Your task to perform on an android device: Open calendar and show me the third week of next month Image 0: 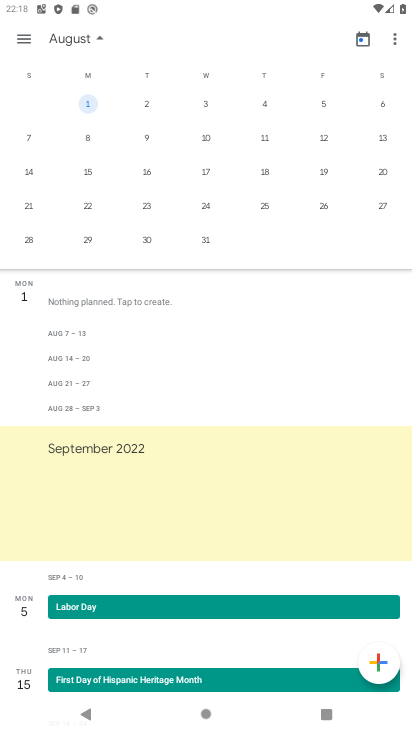
Step 0: press home button
Your task to perform on an android device: Open calendar and show me the third week of next month Image 1: 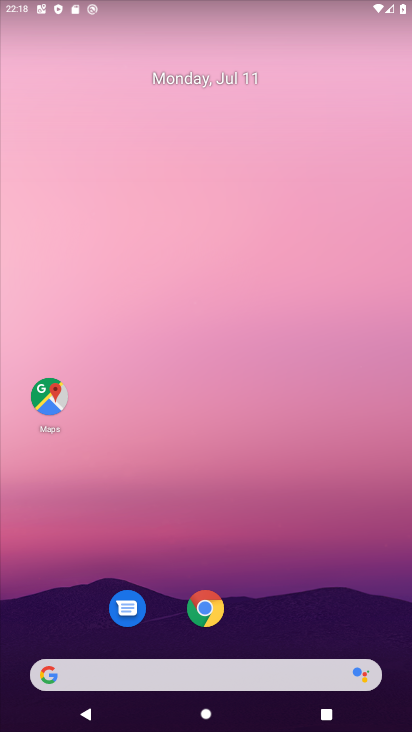
Step 1: drag from (43, 713) to (200, 9)
Your task to perform on an android device: Open calendar and show me the third week of next month Image 2: 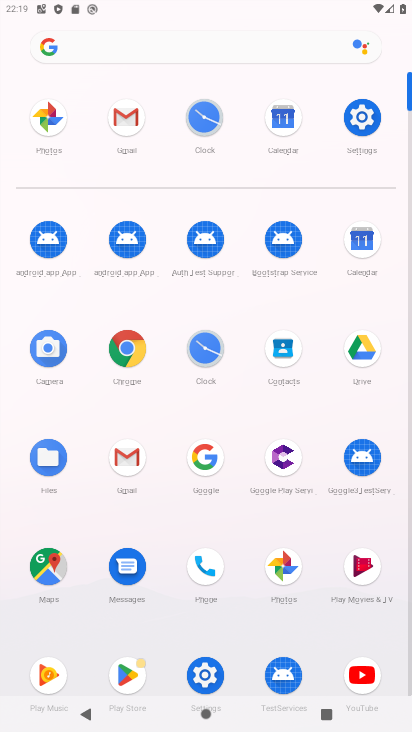
Step 2: click (376, 240)
Your task to perform on an android device: Open calendar and show me the third week of next month Image 3: 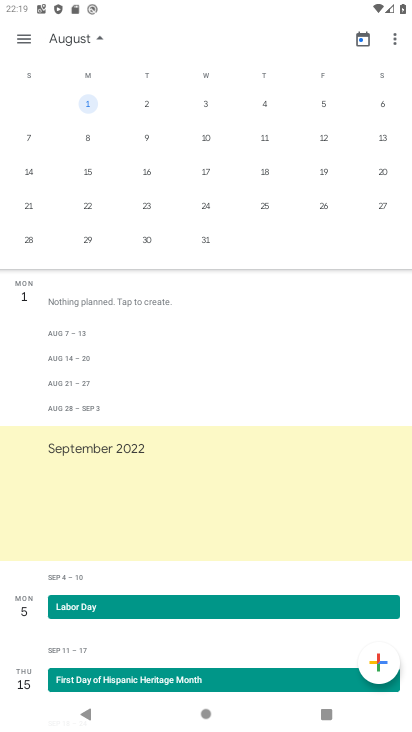
Step 3: click (77, 166)
Your task to perform on an android device: Open calendar and show me the third week of next month Image 4: 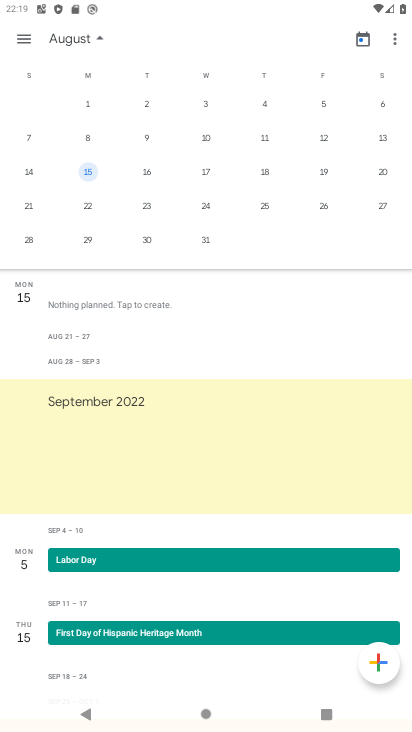
Step 4: task complete